Your task to perform on an android device: What is the recent news? Image 0: 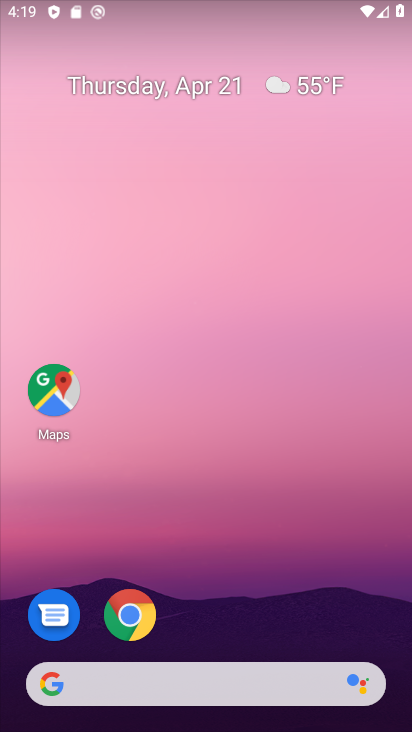
Step 0: drag from (286, 589) to (129, 35)
Your task to perform on an android device: What is the recent news? Image 1: 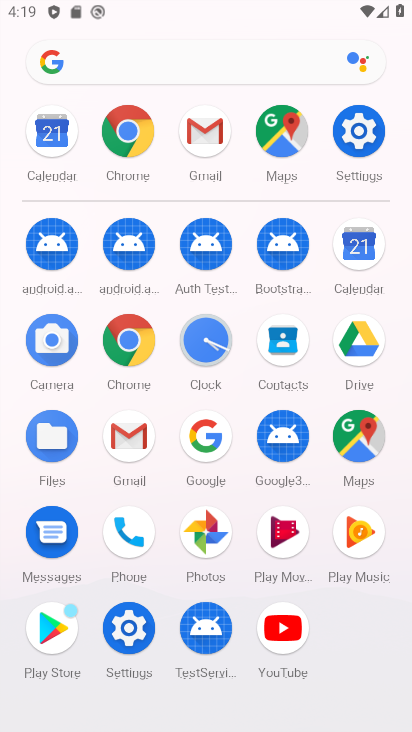
Step 1: drag from (12, 460) to (7, 237)
Your task to perform on an android device: What is the recent news? Image 2: 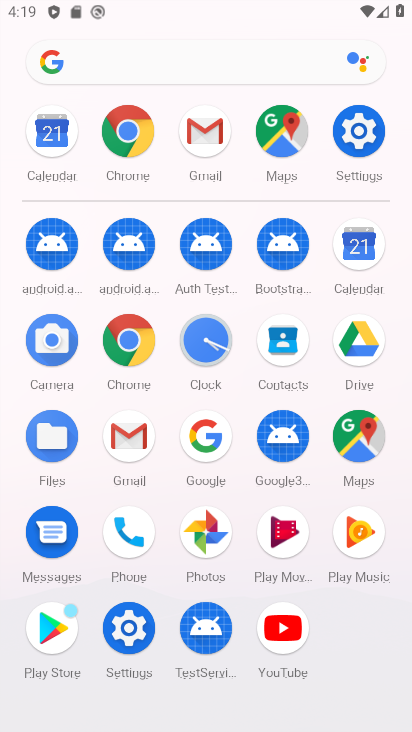
Step 2: click (129, 57)
Your task to perform on an android device: What is the recent news? Image 3: 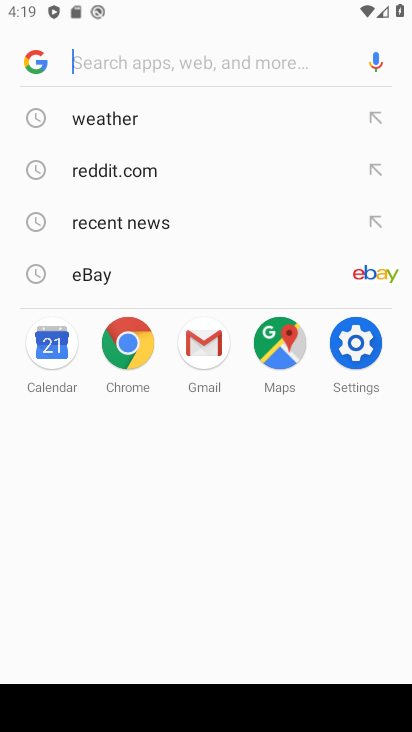
Step 3: type "recent news"
Your task to perform on an android device: What is the recent news? Image 4: 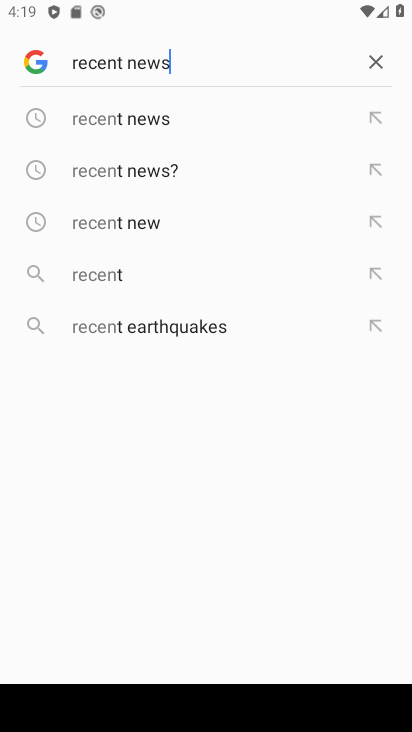
Step 4: type ""
Your task to perform on an android device: What is the recent news? Image 5: 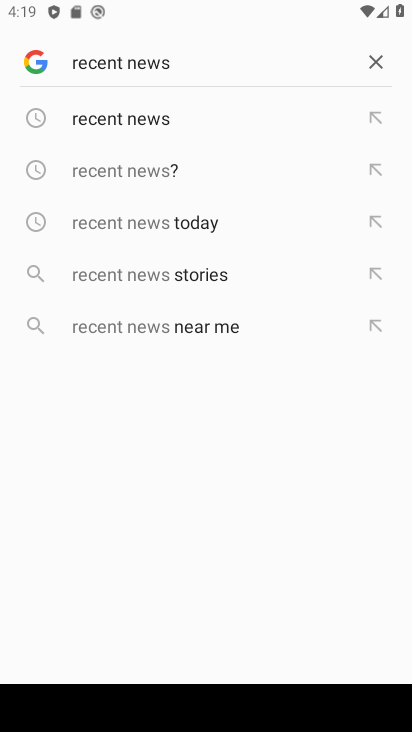
Step 5: click (166, 121)
Your task to perform on an android device: What is the recent news? Image 6: 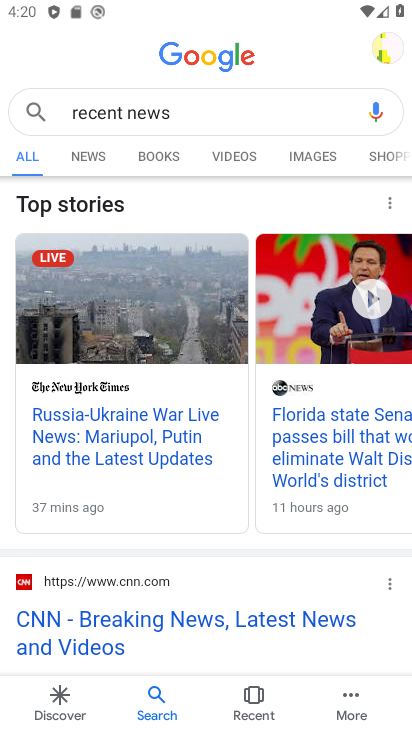
Step 6: task complete